Your task to perform on an android device: toggle notification dots Image 0: 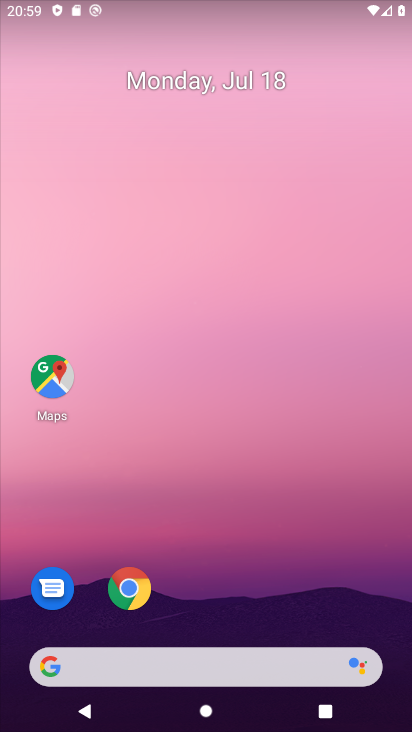
Step 0: drag from (175, 663) to (308, 57)
Your task to perform on an android device: toggle notification dots Image 1: 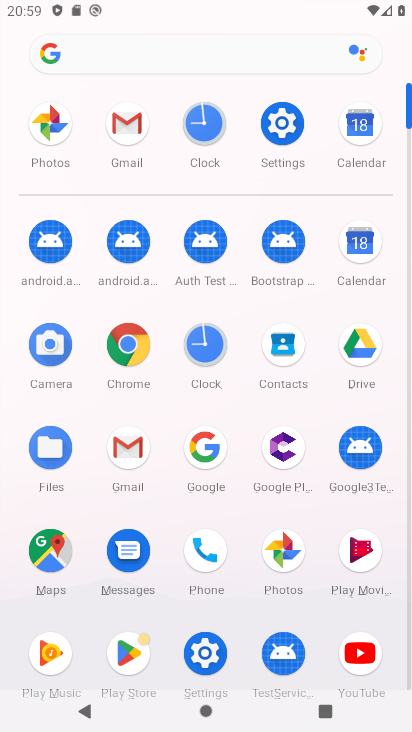
Step 1: click (281, 122)
Your task to perform on an android device: toggle notification dots Image 2: 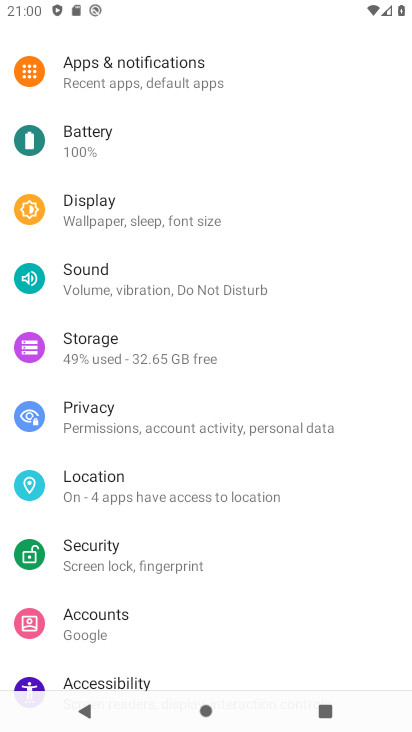
Step 2: click (163, 65)
Your task to perform on an android device: toggle notification dots Image 3: 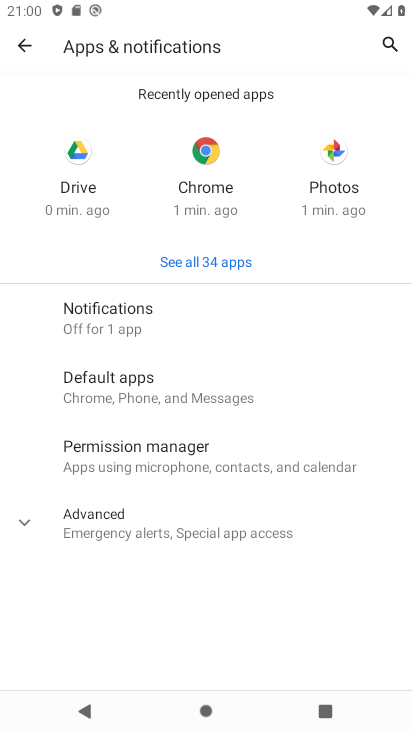
Step 3: click (126, 322)
Your task to perform on an android device: toggle notification dots Image 4: 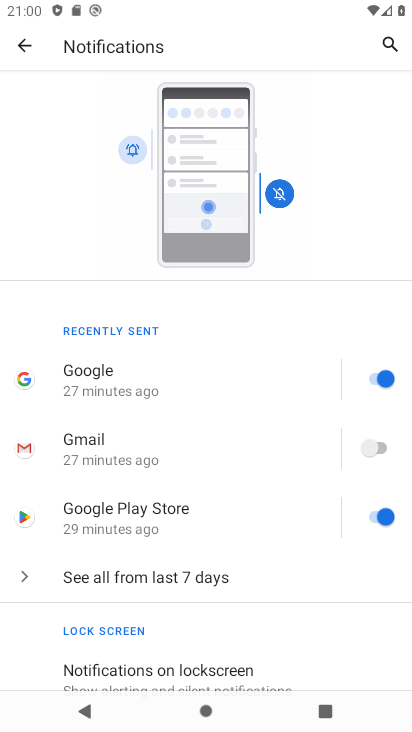
Step 4: drag from (251, 629) to (298, 223)
Your task to perform on an android device: toggle notification dots Image 5: 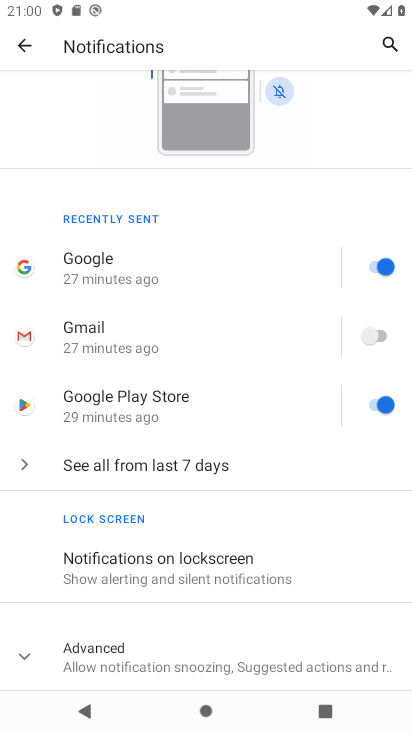
Step 5: click (114, 648)
Your task to perform on an android device: toggle notification dots Image 6: 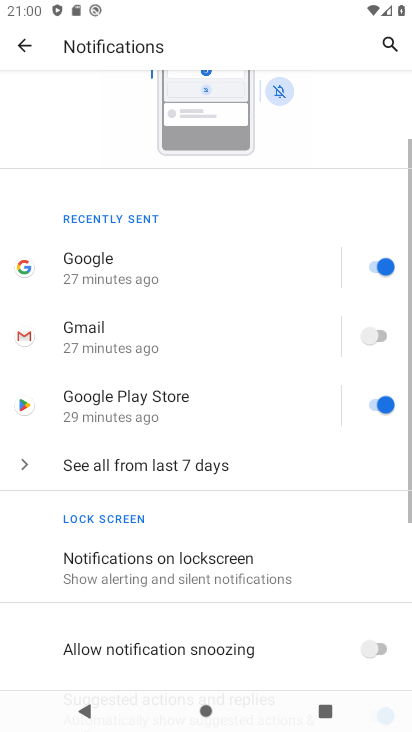
Step 6: drag from (265, 627) to (336, 116)
Your task to perform on an android device: toggle notification dots Image 7: 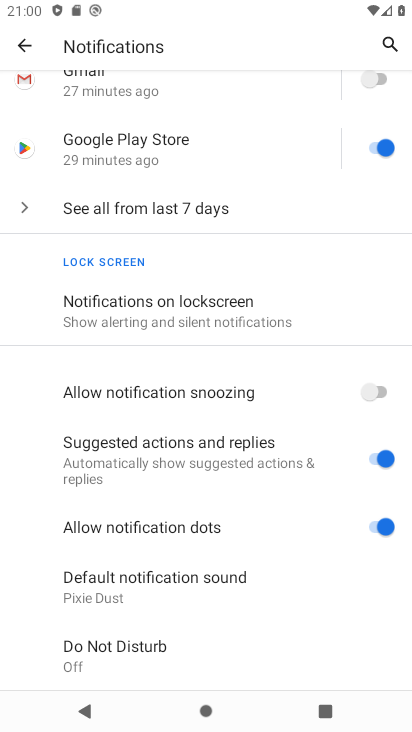
Step 7: click (374, 528)
Your task to perform on an android device: toggle notification dots Image 8: 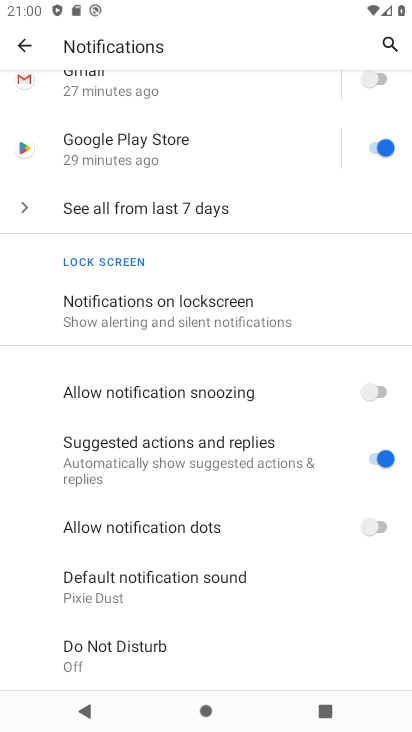
Step 8: task complete